Your task to perform on an android device: allow cookies in the chrome app Image 0: 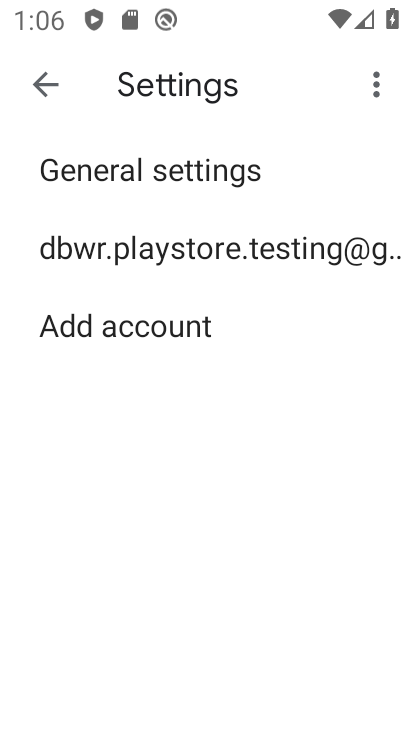
Step 0: press home button
Your task to perform on an android device: allow cookies in the chrome app Image 1: 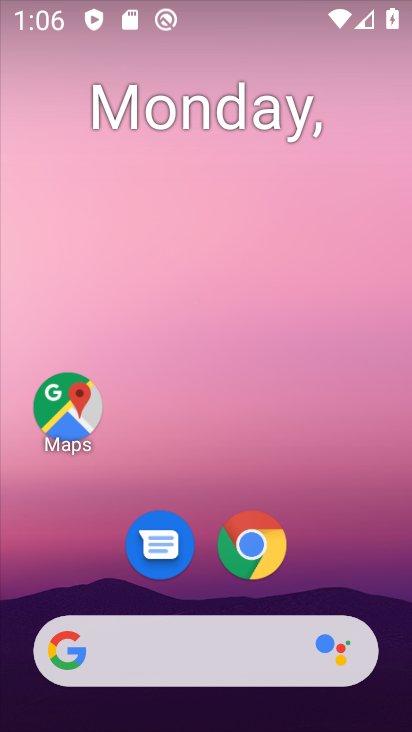
Step 1: click (251, 543)
Your task to perform on an android device: allow cookies in the chrome app Image 2: 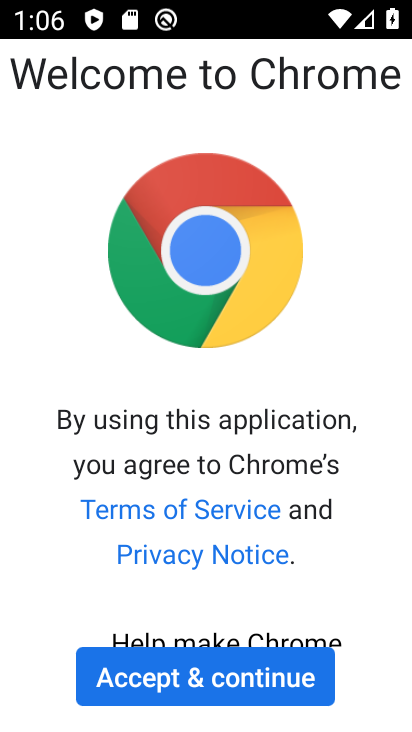
Step 2: click (205, 682)
Your task to perform on an android device: allow cookies in the chrome app Image 3: 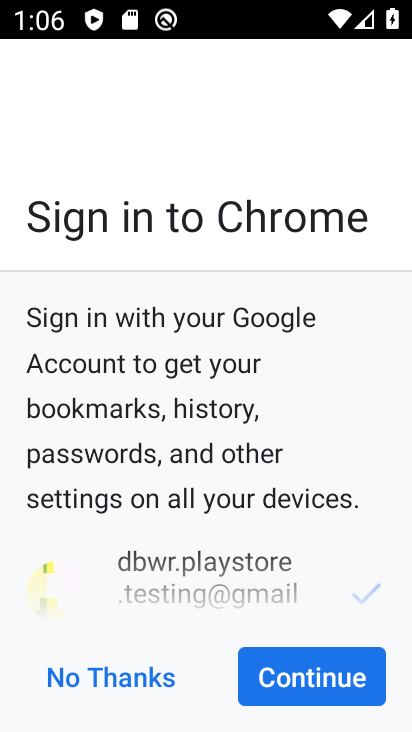
Step 3: click (307, 668)
Your task to perform on an android device: allow cookies in the chrome app Image 4: 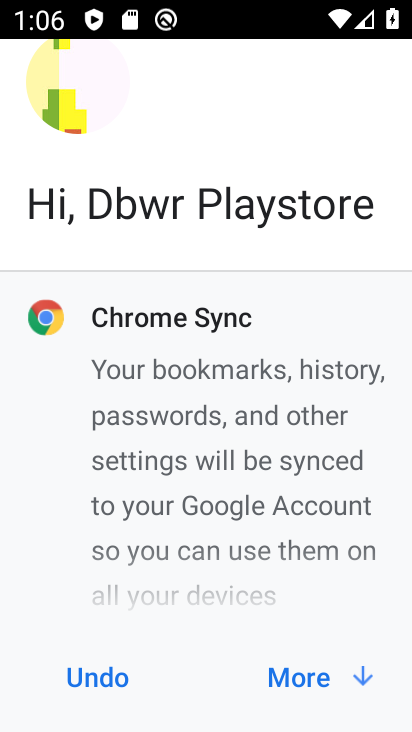
Step 4: click (300, 674)
Your task to perform on an android device: allow cookies in the chrome app Image 5: 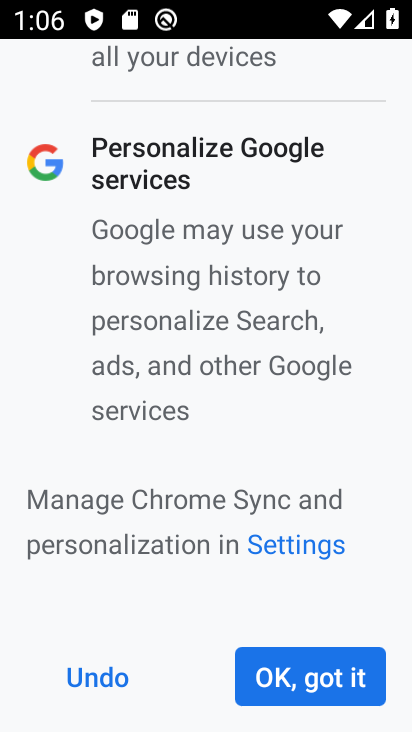
Step 5: click (300, 674)
Your task to perform on an android device: allow cookies in the chrome app Image 6: 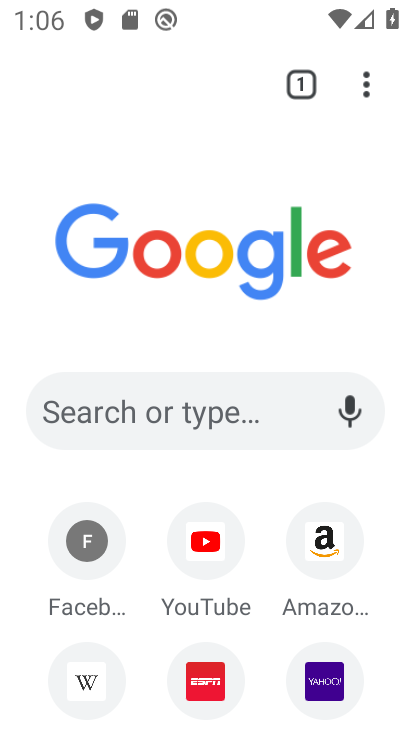
Step 6: click (367, 93)
Your task to perform on an android device: allow cookies in the chrome app Image 7: 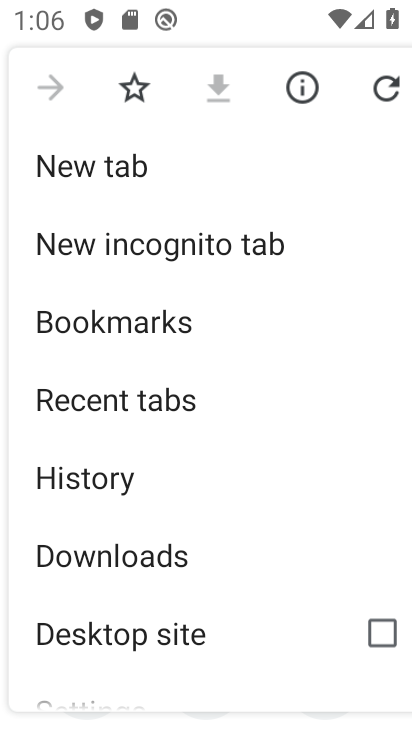
Step 7: drag from (142, 613) to (147, 230)
Your task to perform on an android device: allow cookies in the chrome app Image 8: 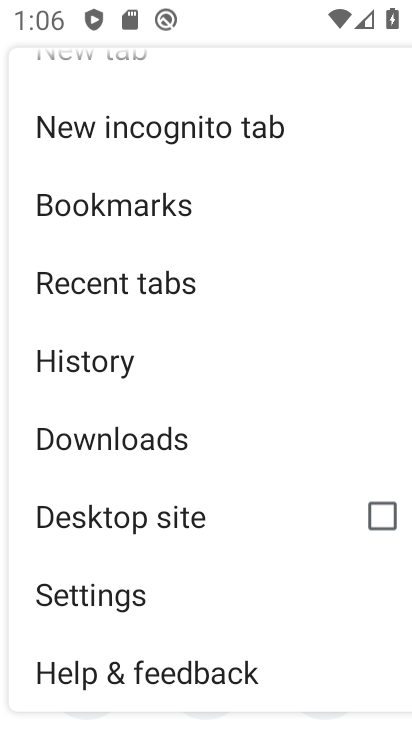
Step 8: click (85, 594)
Your task to perform on an android device: allow cookies in the chrome app Image 9: 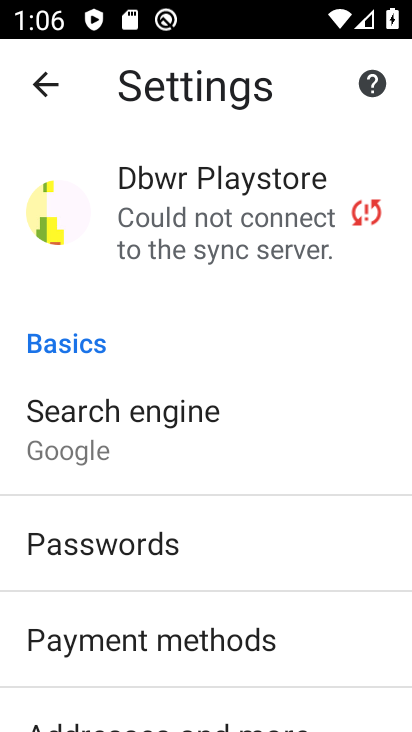
Step 9: drag from (159, 698) to (167, 319)
Your task to perform on an android device: allow cookies in the chrome app Image 10: 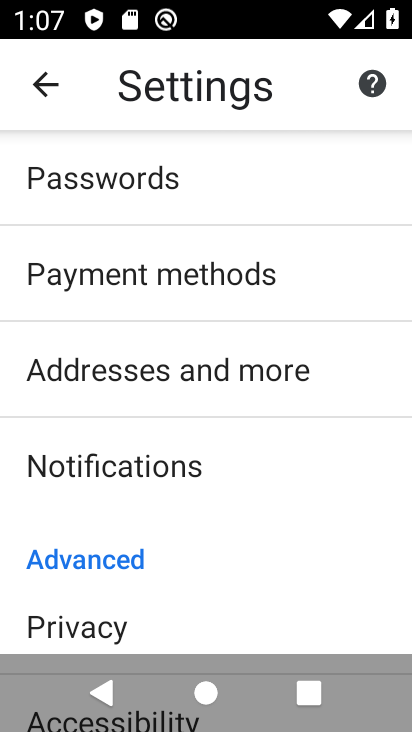
Step 10: drag from (186, 607) to (193, 383)
Your task to perform on an android device: allow cookies in the chrome app Image 11: 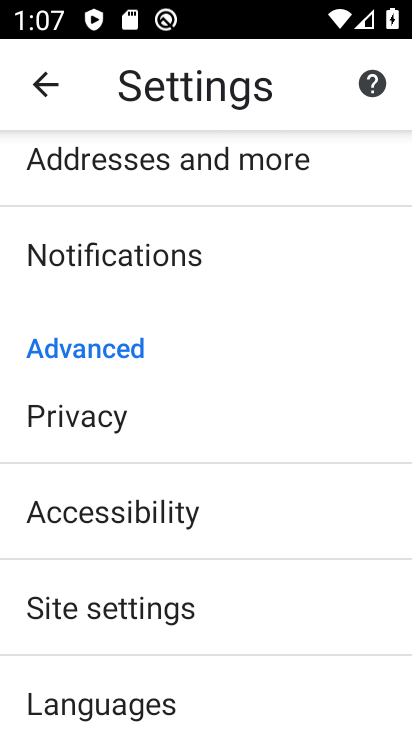
Step 11: click (138, 600)
Your task to perform on an android device: allow cookies in the chrome app Image 12: 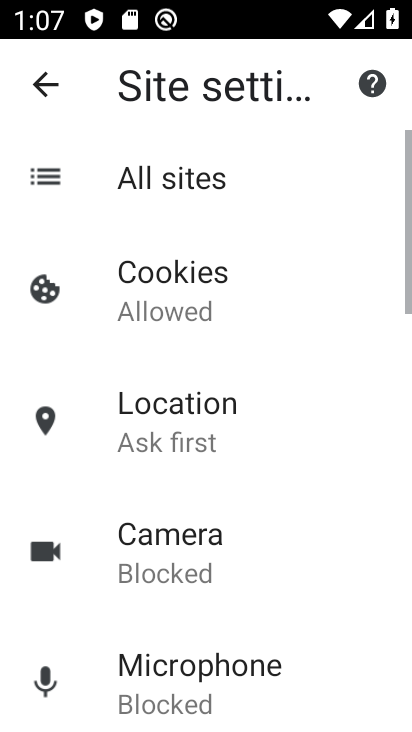
Step 12: click (157, 277)
Your task to perform on an android device: allow cookies in the chrome app Image 13: 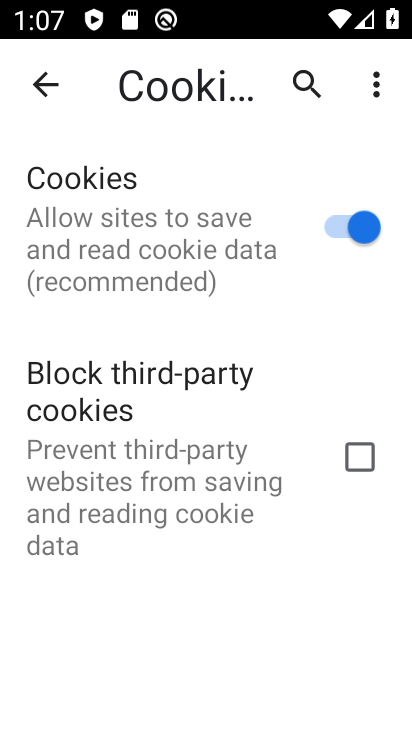
Step 13: task complete